Your task to perform on an android device: Is it going to rain today? Image 0: 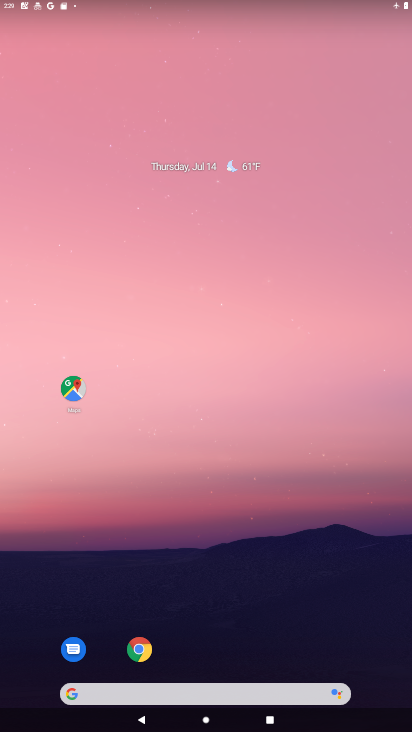
Step 0: drag from (200, 685) to (239, 148)
Your task to perform on an android device: Is it going to rain today? Image 1: 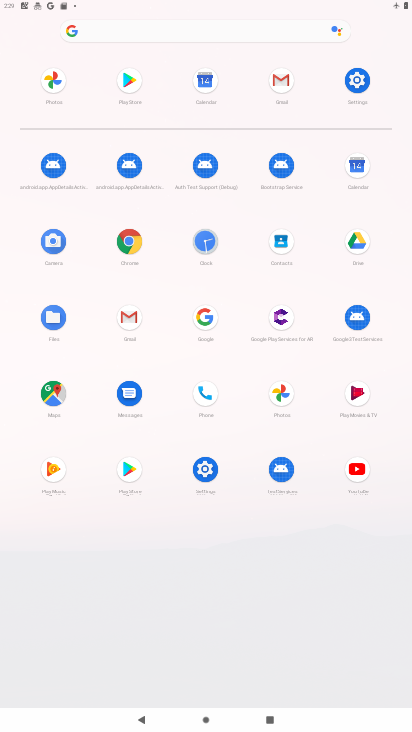
Step 1: press home button
Your task to perform on an android device: Is it going to rain today? Image 2: 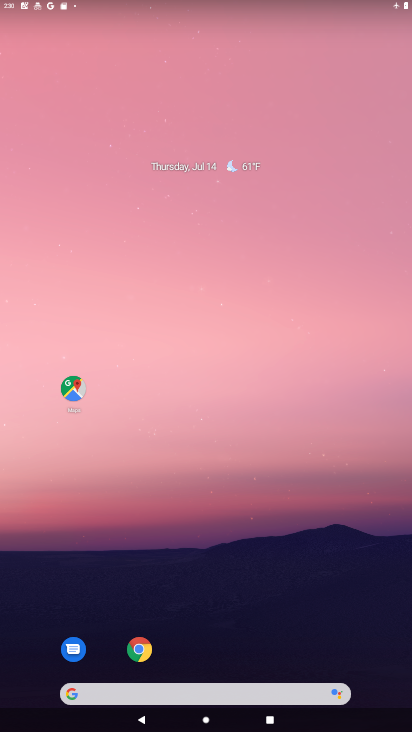
Step 2: drag from (7, 188) to (401, 224)
Your task to perform on an android device: Is it going to rain today? Image 3: 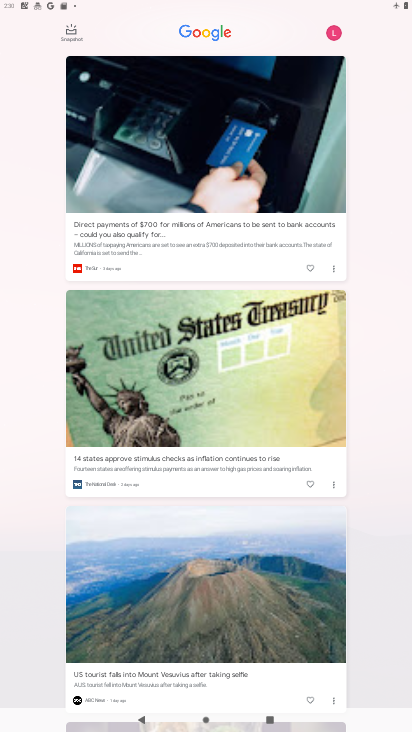
Step 3: press home button
Your task to perform on an android device: Is it going to rain today? Image 4: 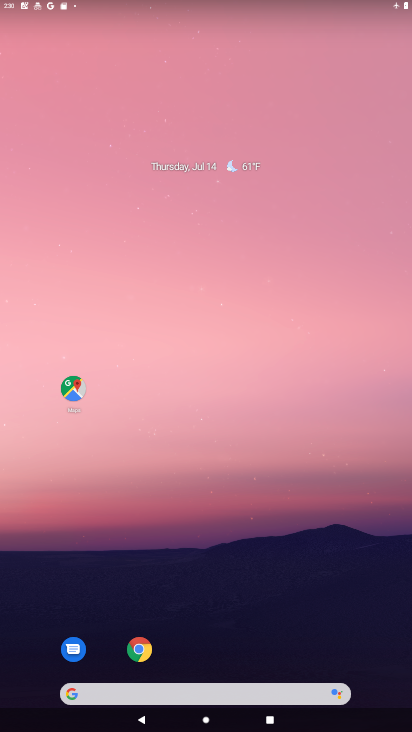
Step 4: drag from (284, 686) to (304, 20)
Your task to perform on an android device: Is it going to rain today? Image 5: 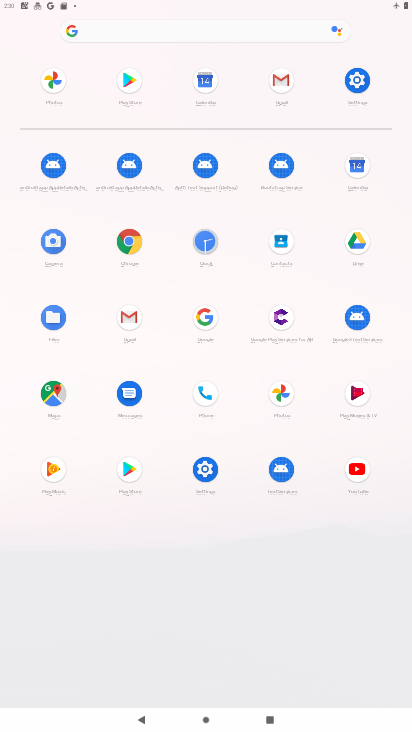
Step 5: click (142, 243)
Your task to perform on an android device: Is it going to rain today? Image 6: 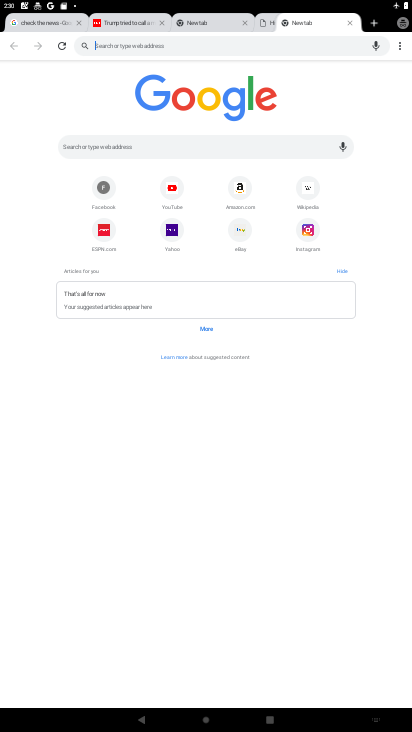
Step 6: type "going to rain today"
Your task to perform on an android device: Is it going to rain today? Image 7: 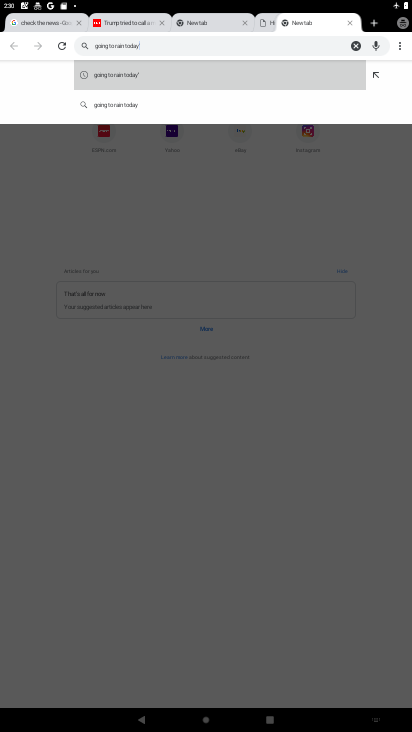
Step 7: click (151, 72)
Your task to perform on an android device: Is it going to rain today? Image 8: 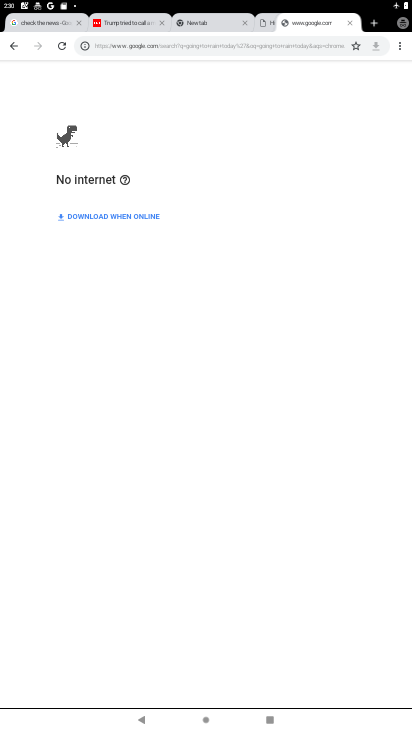
Step 8: task complete